Your task to perform on an android device: toggle location history Image 0: 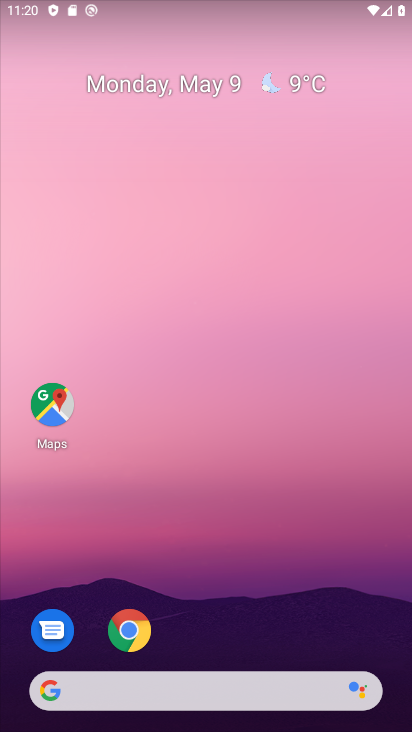
Step 0: click (49, 404)
Your task to perform on an android device: toggle location history Image 1: 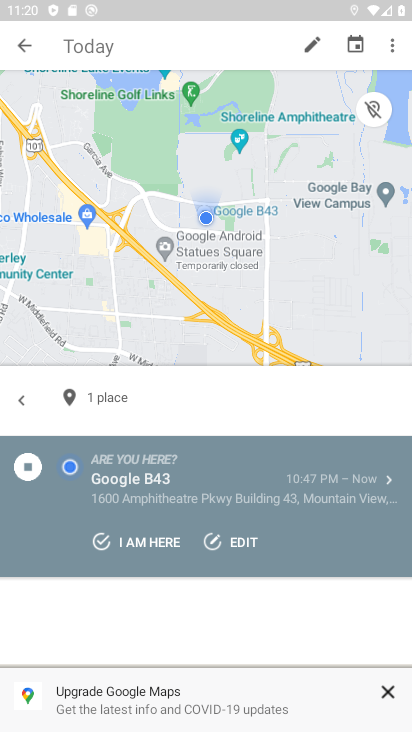
Step 1: click (396, 53)
Your task to perform on an android device: toggle location history Image 2: 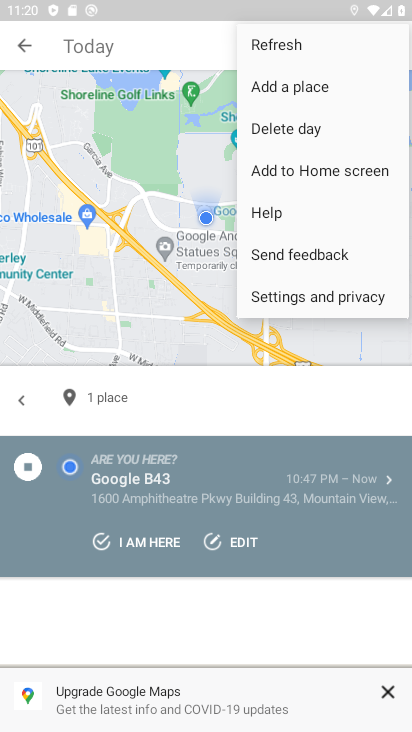
Step 2: click (276, 283)
Your task to perform on an android device: toggle location history Image 3: 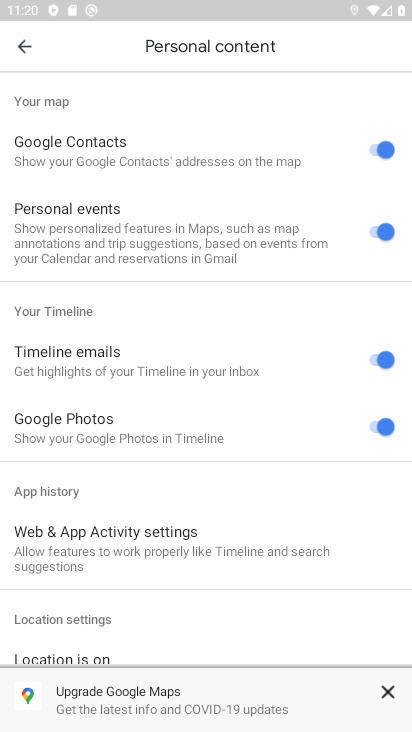
Step 3: drag from (213, 571) to (168, 235)
Your task to perform on an android device: toggle location history Image 4: 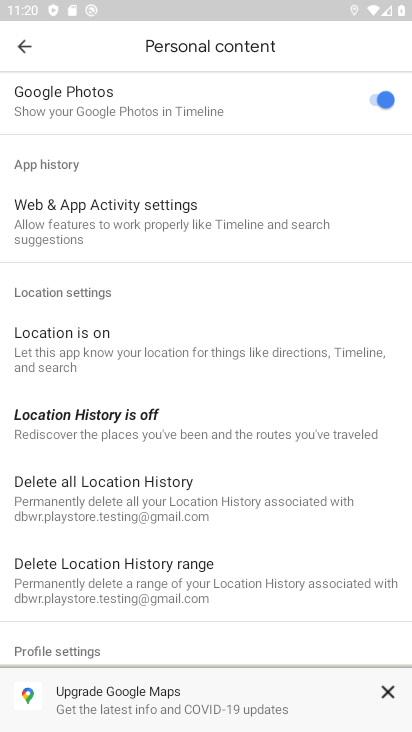
Step 4: click (75, 414)
Your task to perform on an android device: toggle location history Image 5: 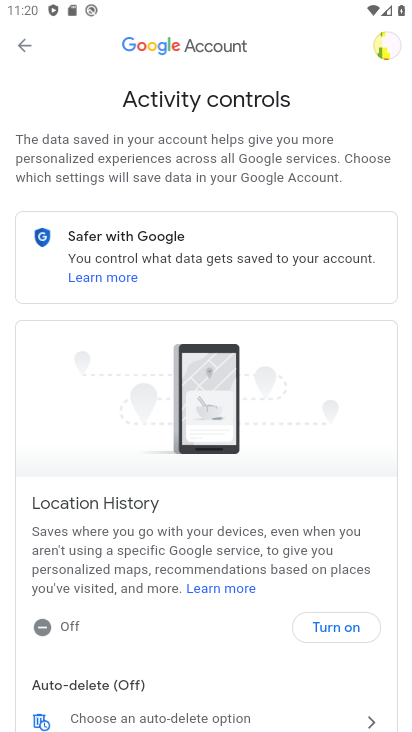
Step 5: click (332, 633)
Your task to perform on an android device: toggle location history Image 6: 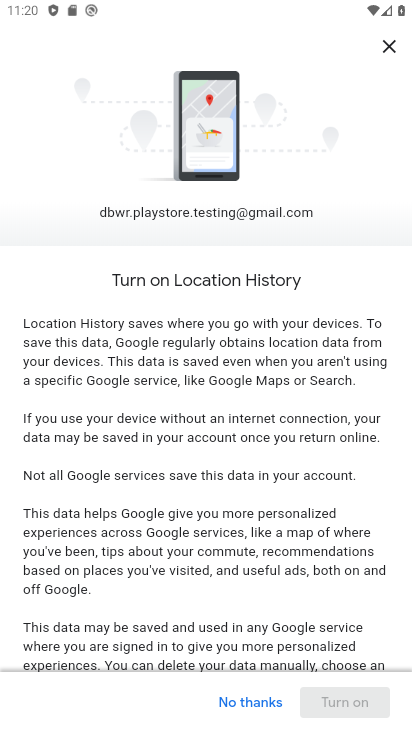
Step 6: drag from (286, 563) to (258, 267)
Your task to perform on an android device: toggle location history Image 7: 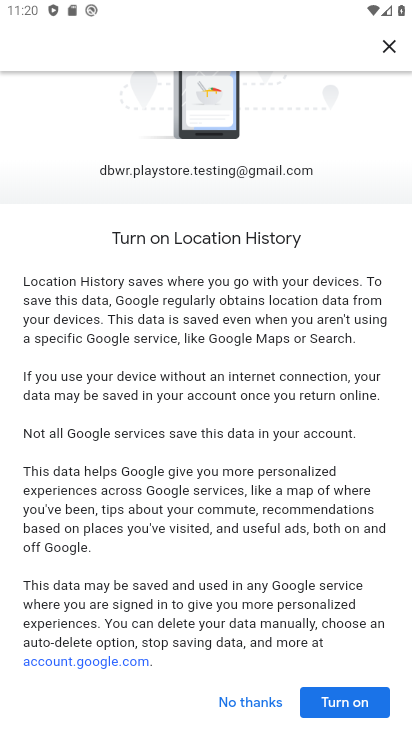
Step 7: click (326, 700)
Your task to perform on an android device: toggle location history Image 8: 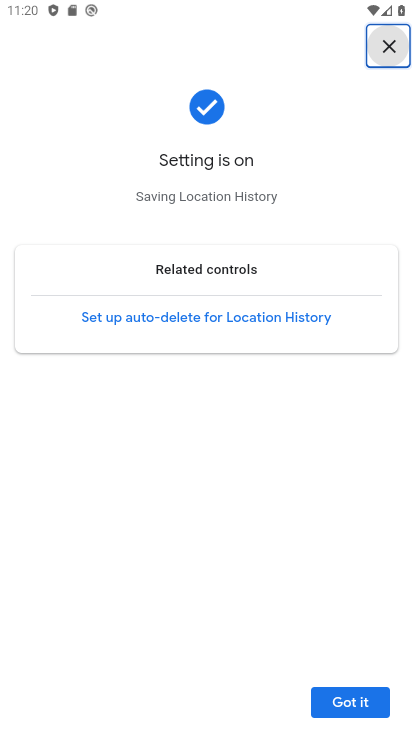
Step 8: click (347, 699)
Your task to perform on an android device: toggle location history Image 9: 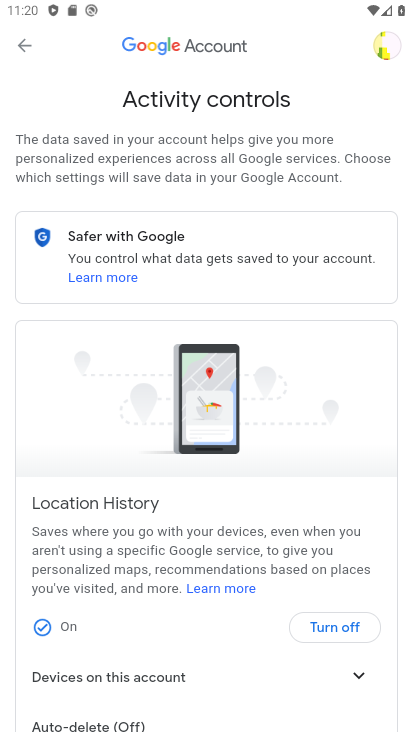
Step 9: task complete